Your task to perform on an android device: Show me popular games on the Play Store Image 0: 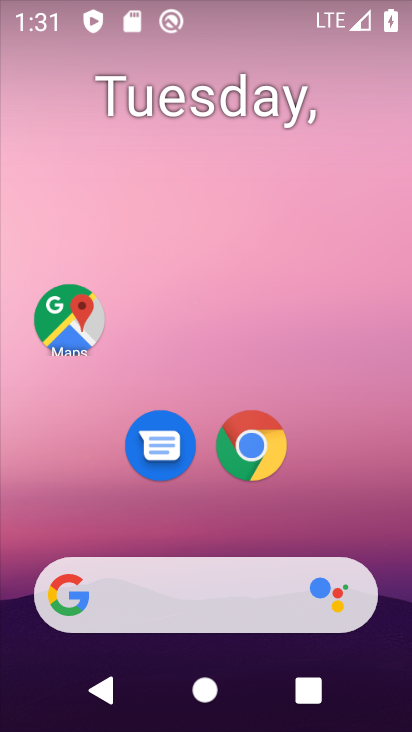
Step 0: drag from (114, 554) to (232, 19)
Your task to perform on an android device: Show me popular games on the Play Store Image 1: 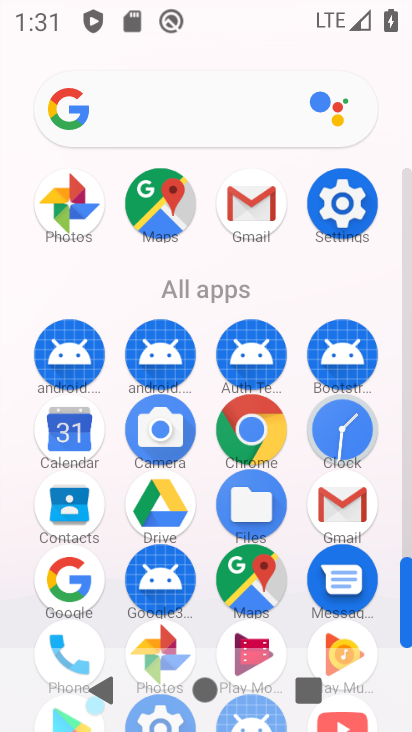
Step 1: drag from (176, 652) to (271, 362)
Your task to perform on an android device: Show me popular games on the Play Store Image 2: 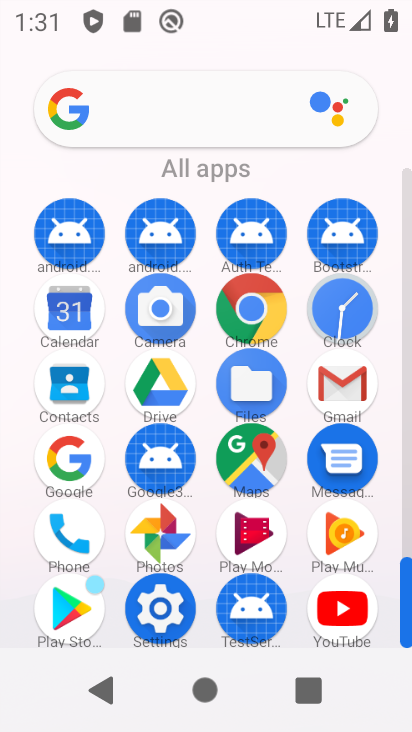
Step 2: click (76, 618)
Your task to perform on an android device: Show me popular games on the Play Store Image 3: 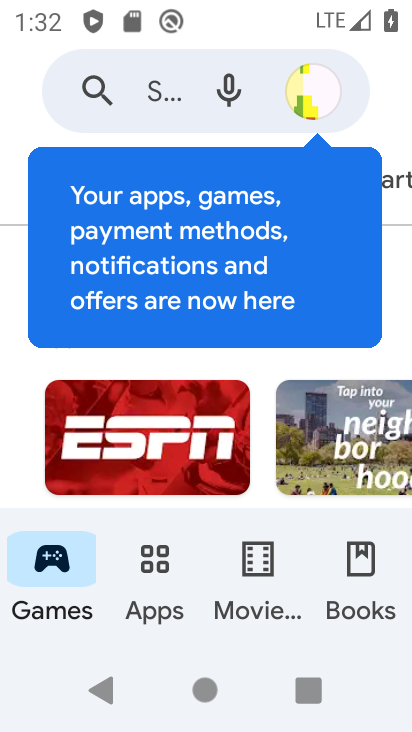
Step 3: drag from (210, 450) to (340, 143)
Your task to perform on an android device: Show me popular games on the Play Store Image 4: 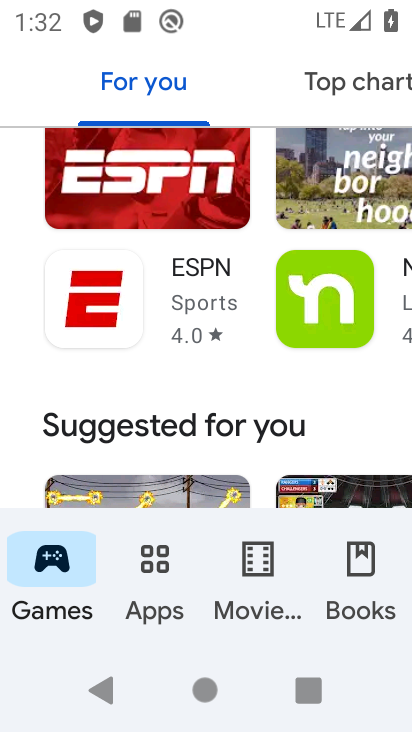
Step 4: drag from (227, 431) to (318, 120)
Your task to perform on an android device: Show me popular games on the Play Store Image 5: 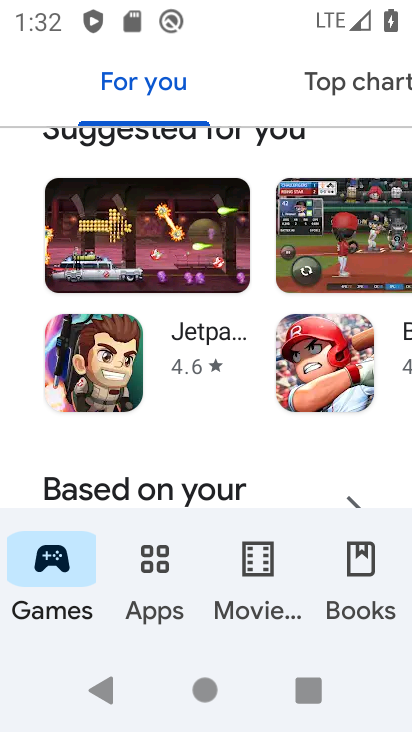
Step 5: drag from (224, 417) to (323, 109)
Your task to perform on an android device: Show me popular games on the Play Store Image 6: 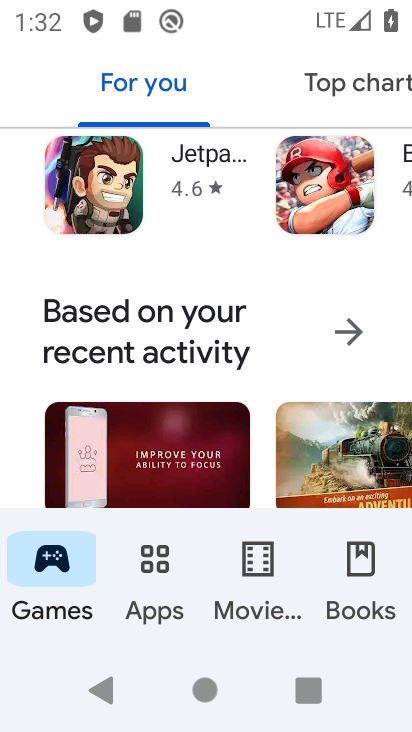
Step 6: drag from (213, 403) to (315, 43)
Your task to perform on an android device: Show me popular games on the Play Store Image 7: 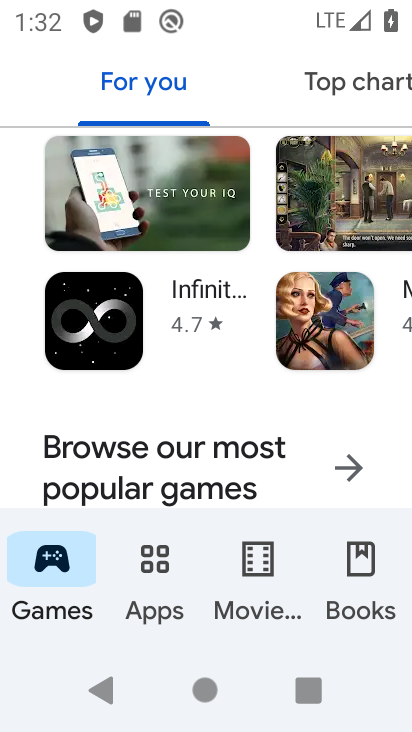
Step 7: drag from (241, 398) to (315, 95)
Your task to perform on an android device: Show me popular games on the Play Store Image 8: 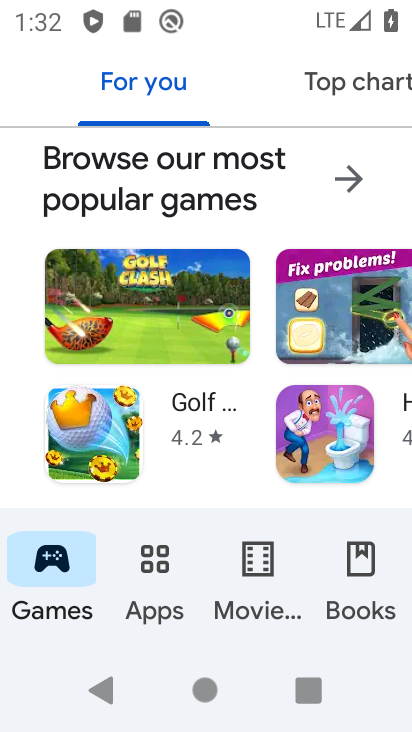
Step 8: click (344, 174)
Your task to perform on an android device: Show me popular games on the Play Store Image 9: 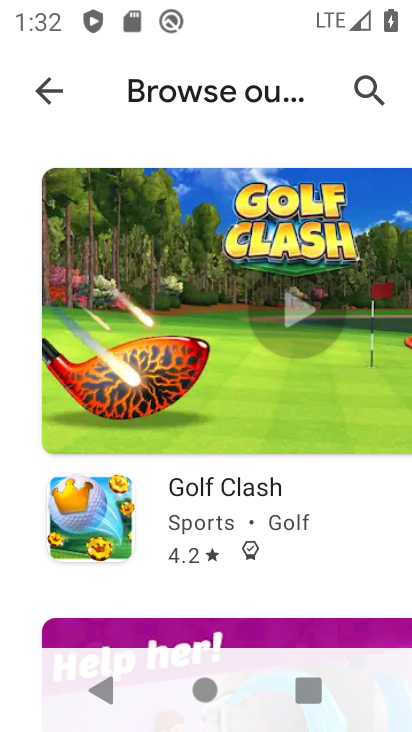
Step 9: task complete